Your task to perform on an android device: toggle improve location accuracy Image 0: 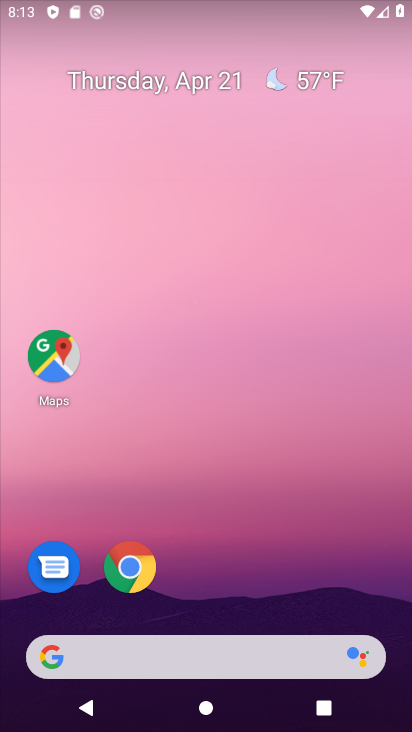
Step 0: drag from (217, 611) to (228, 59)
Your task to perform on an android device: toggle improve location accuracy Image 1: 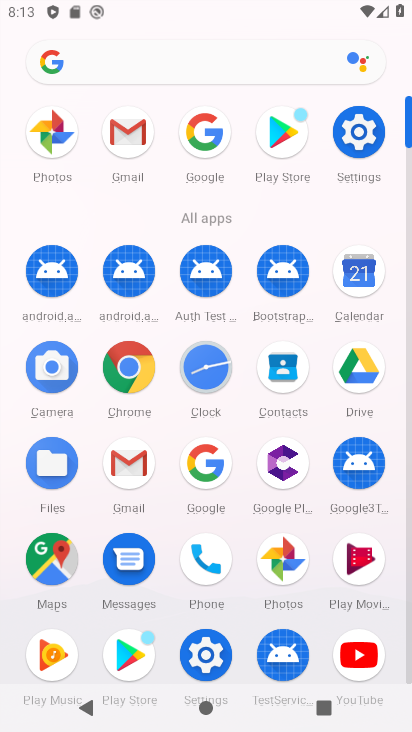
Step 1: click (348, 119)
Your task to perform on an android device: toggle improve location accuracy Image 2: 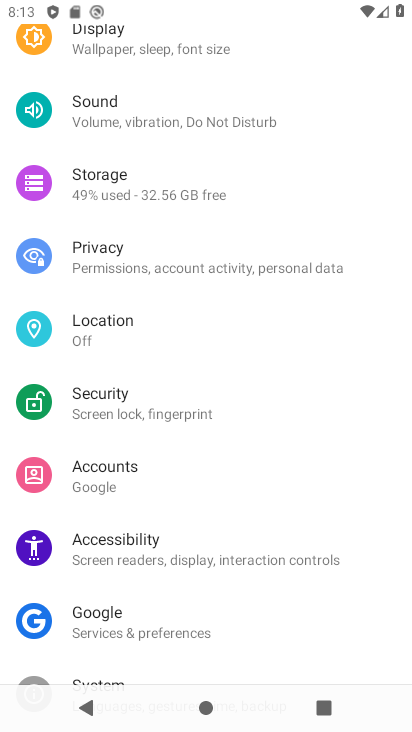
Step 2: click (145, 328)
Your task to perform on an android device: toggle improve location accuracy Image 3: 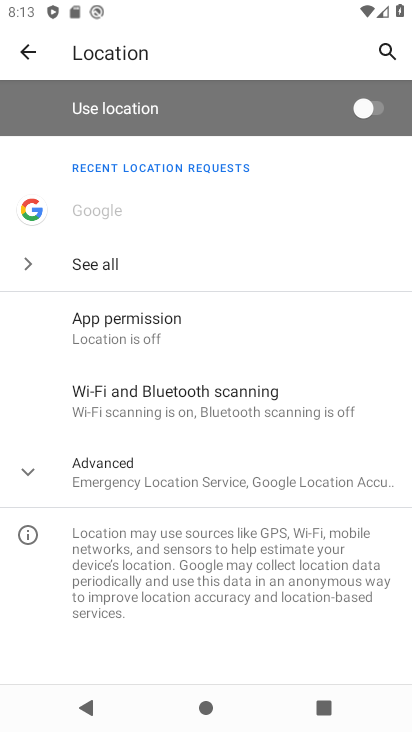
Step 3: click (161, 474)
Your task to perform on an android device: toggle improve location accuracy Image 4: 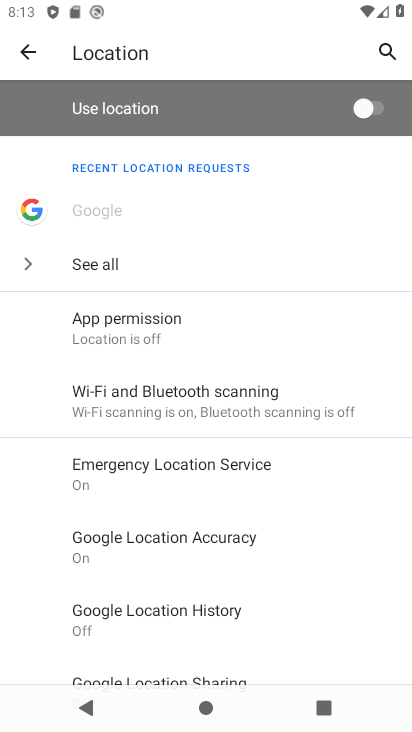
Step 4: click (227, 550)
Your task to perform on an android device: toggle improve location accuracy Image 5: 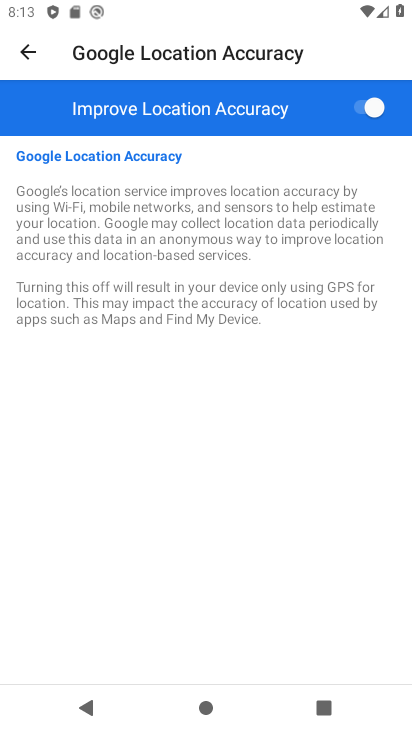
Step 5: click (361, 107)
Your task to perform on an android device: toggle improve location accuracy Image 6: 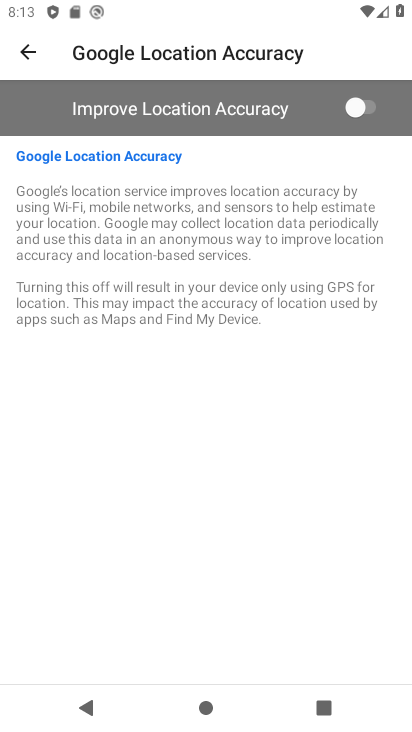
Step 6: task complete